Your task to perform on an android device: manage bookmarks in the chrome app Image 0: 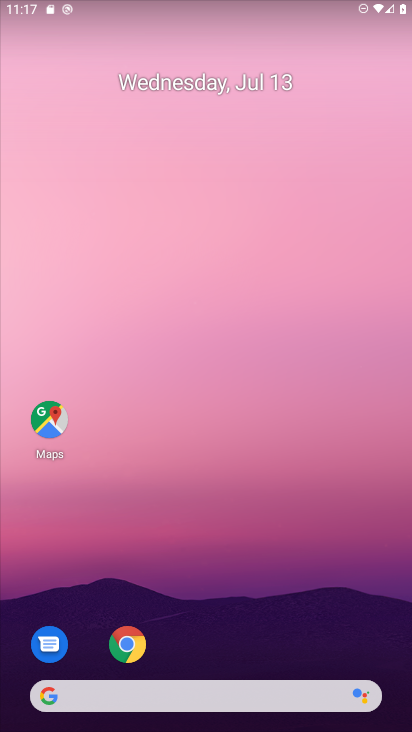
Step 0: click (123, 636)
Your task to perform on an android device: manage bookmarks in the chrome app Image 1: 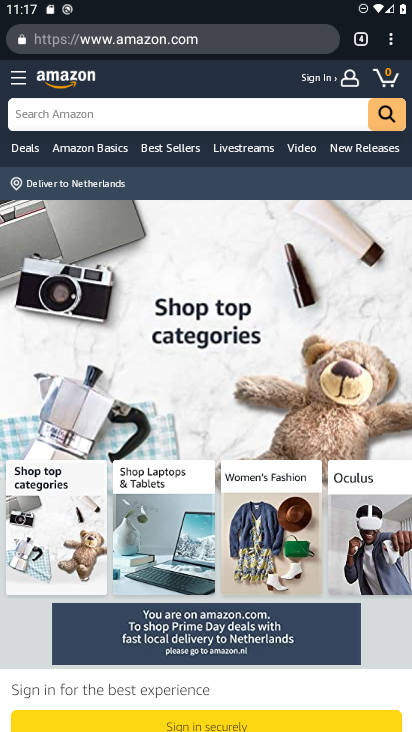
Step 1: click (390, 40)
Your task to perform on an android device: manage bookmarks in the chrome app Image 2: 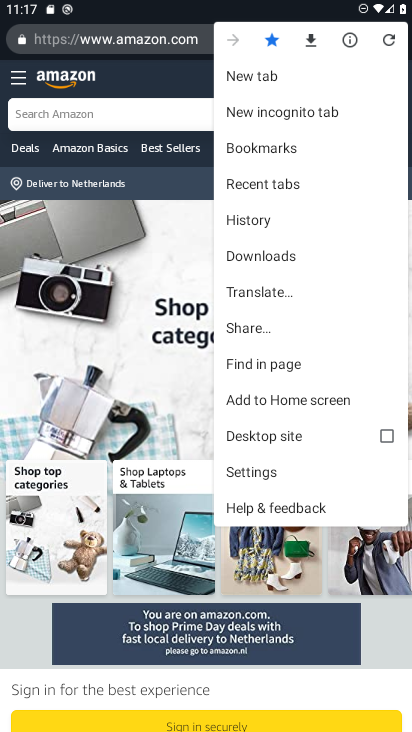
Step 2: click (261, 145)
Your task to perform on an android device: manage bookmarks in the chrome app Image 3: 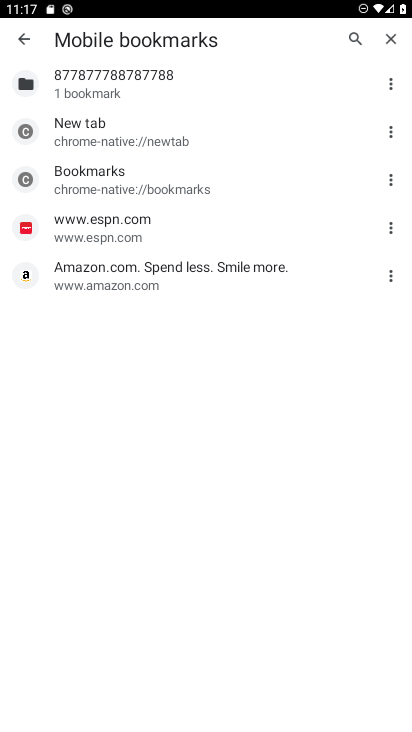
Step 3: click (393, 127)
Your task to perform on an android device: manage bookmarks in the chrome app Image 4: 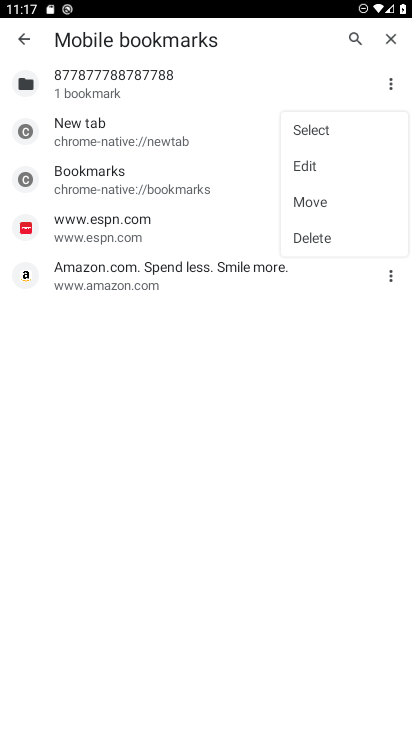
Step 4: click (314, 168)
Your task to perform on an android device: manage bookmarks in the chrome app Image 5: 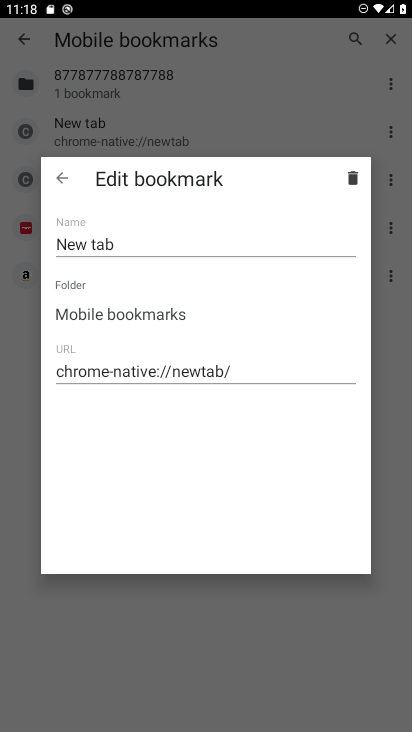
Step 5: task complete